Your task to perform on an android device: Search for Italian restaurants on Maps Image 0: 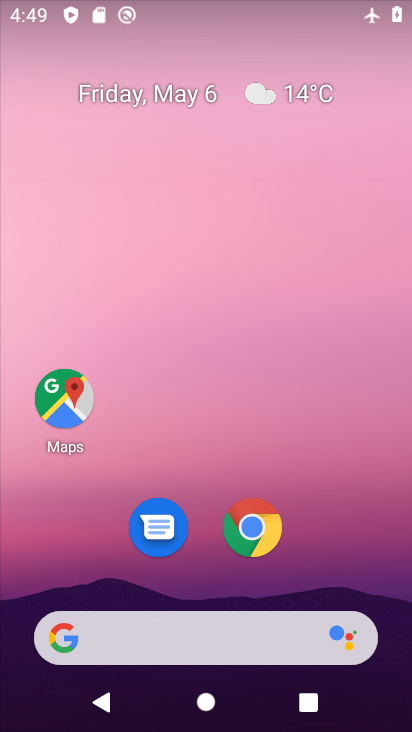
Step 0: drag from (217, 727) to (221, 82)
Your task to perform on an android device: Search for Italian restaurants on Maps Image 1: 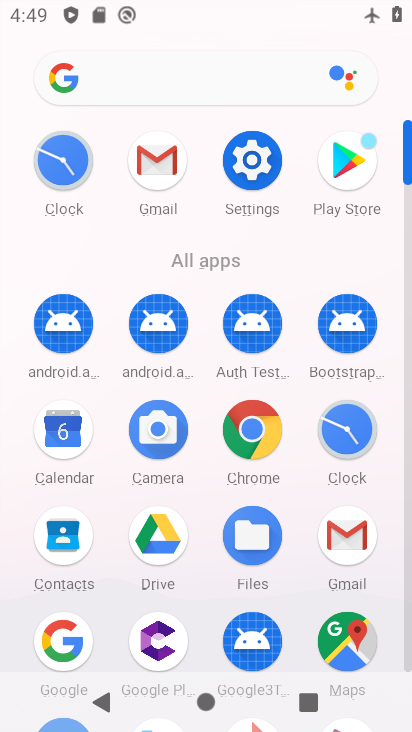
Step 1: click (347, 634)
Your task to perform on an android device: Search for Italian restaurants on Maps Image 2: 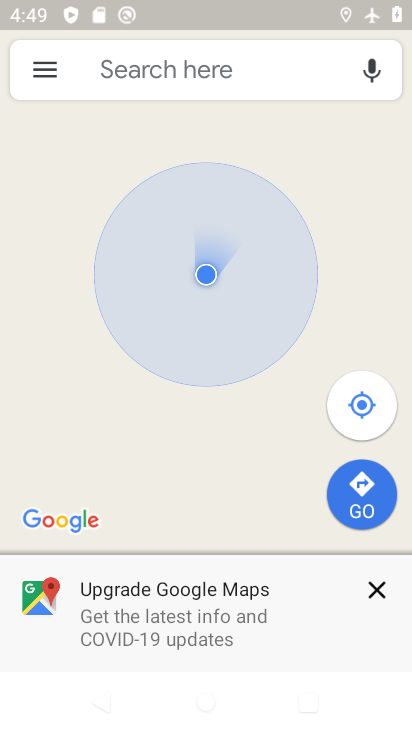
Step 2: click (142, 74)
Your task to perform on an android device: Search for Italian restaurants on Maps Image 3: 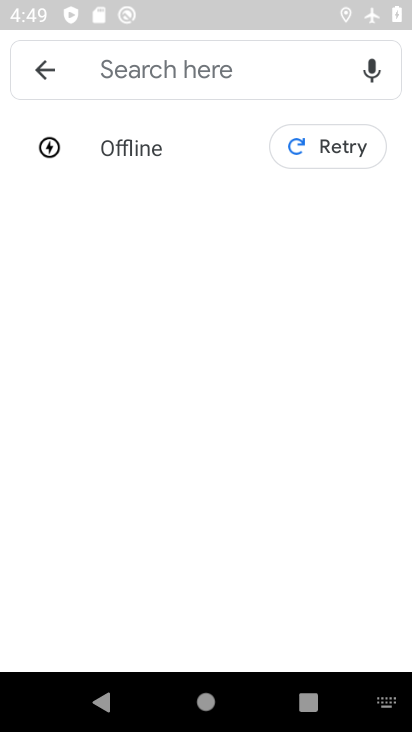
Step 3: type "italian restaurants"
Your task to perform on an android device: Search for Italian restaurants on Maps Image 4: 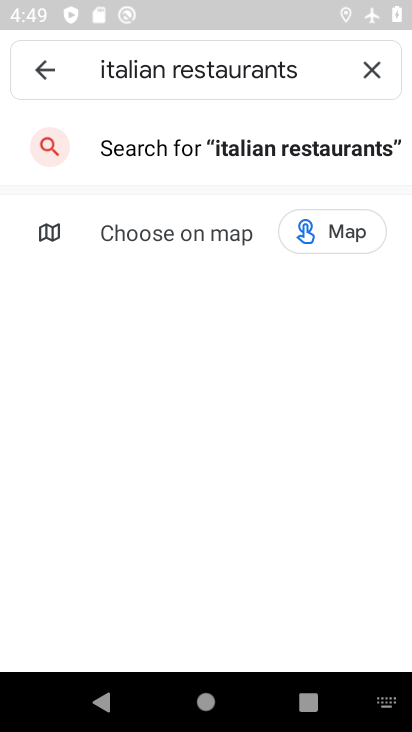
Step 4: click (223, 154)
Your task to perform on an android device: Search for Italian restaurants on Maps Image 5: 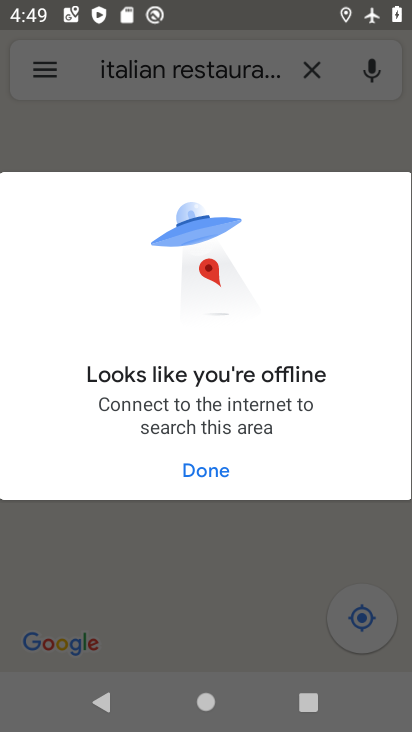
Step 5: task complete